Your task to perform on an android device: toggle notifications settings in the gmail app Image 0: 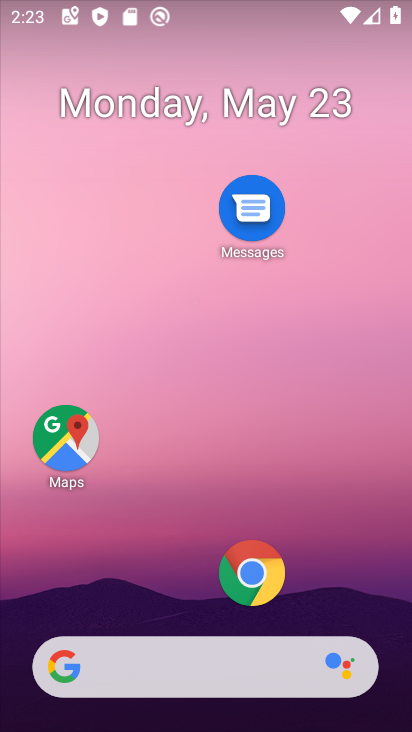
Step 0: drag from (249, 588) to (252, 7)
Your task to perform on an android device: toggle notifications settings in the gmail app Image 1: 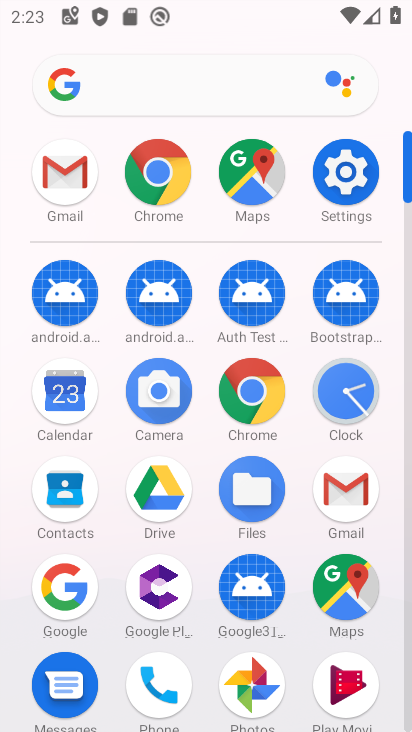
Step 1: click (356, 502)
Your task to perform on an android device: toggle notifications settings in the gmail app Image 2: 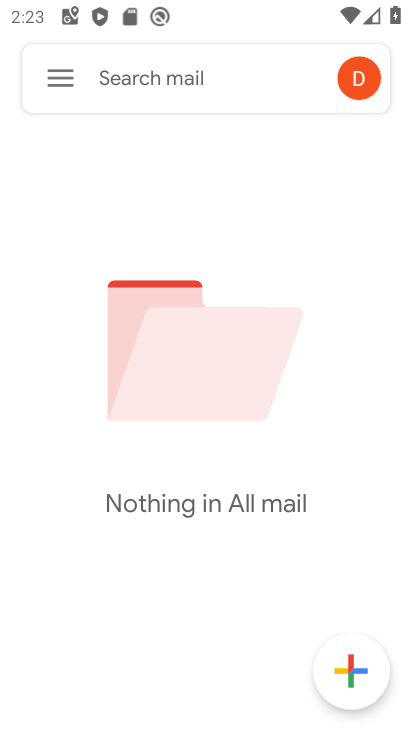
Step 2: click (66, 79)
Your task to perform on an android device: toggle notifications settings in the gmail app Image 3: 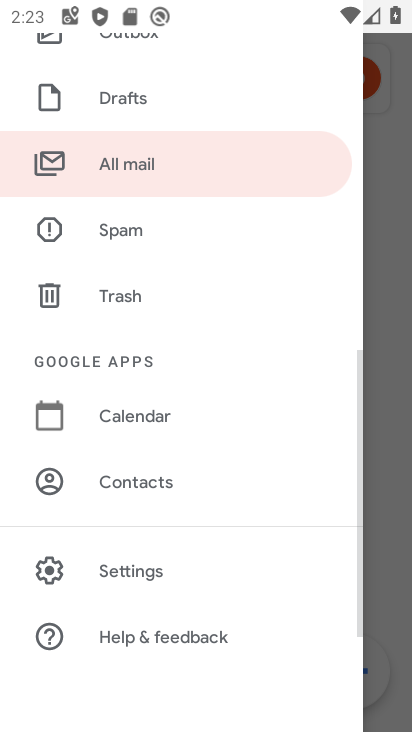
Step 3: click (174, 574)
Your task to perform on an android device: toggle notifications settings in the gmail app Image 4: 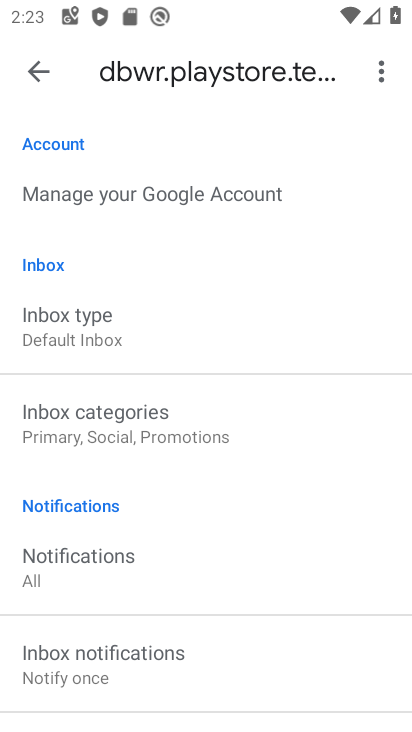
Step 4: drag from (219, 675) to (202, 73)
Your task to perform on an android device: toggle notifications settings in the gmail app Image 5: 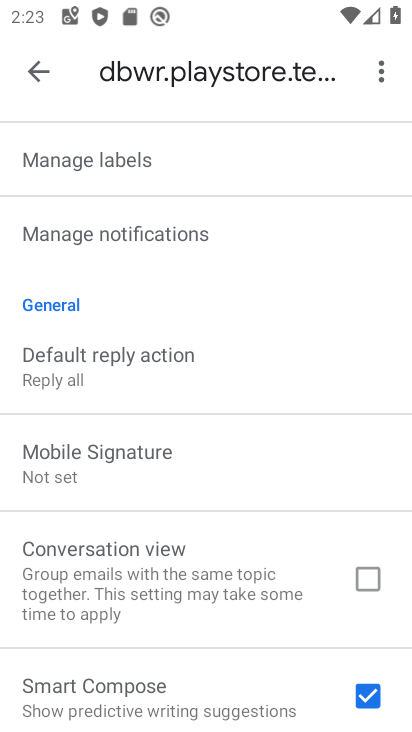
Step 5: click (150, 222)
Your task to perform on an android device: toggle notifications settings in the gmail app Image 6: 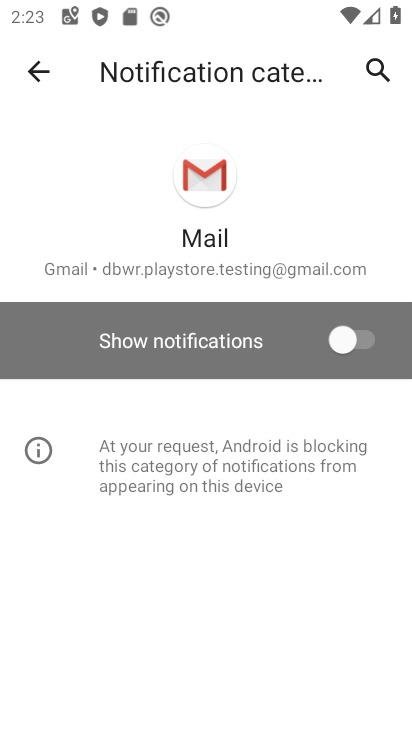
Step 6: click (371, 336)
Your task to perform on an android device: toggle notifications settings in the gmail app Image 7: 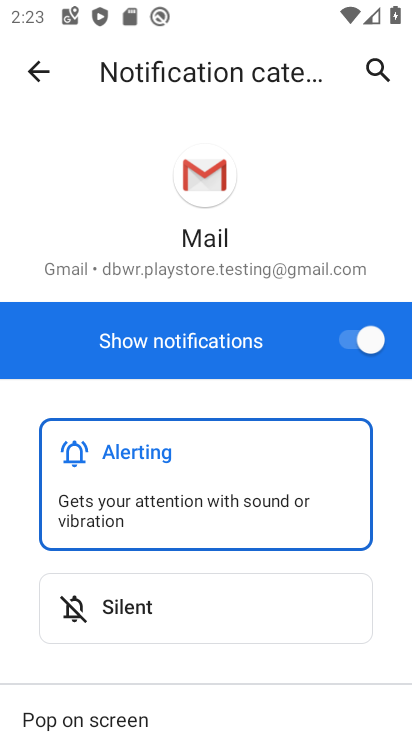
Step 7: task complete